Your task to perform on an android device: delete location history Image 0: 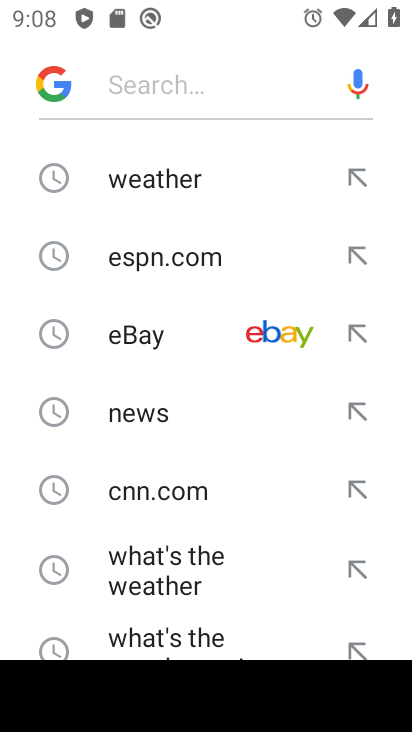
Step 0: press home button
Your task to perform on an android device: delete location history Image 1: 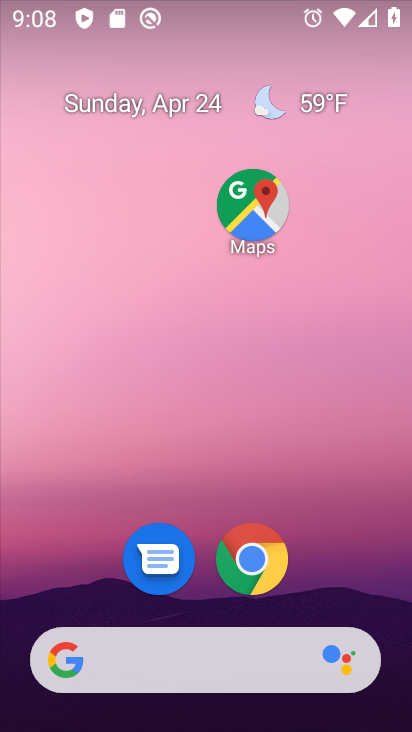
Step 1: drag from (68, 673) to (288, 291)
Your task to perform on an android device: delete location history Image 2: 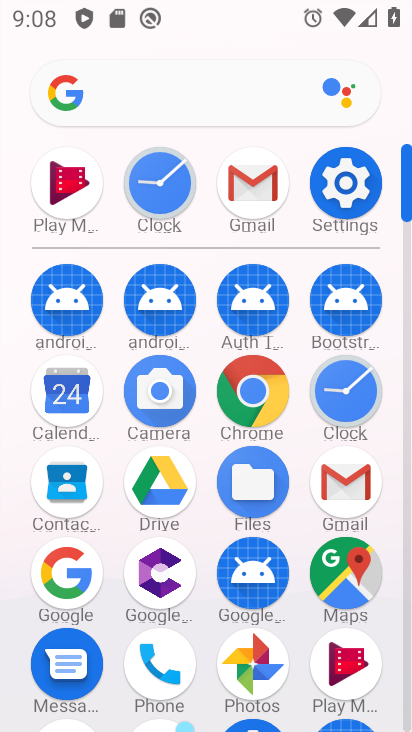
Step 2: click (340, 195)
Your task to perform on an android device: delete location history Image 3: 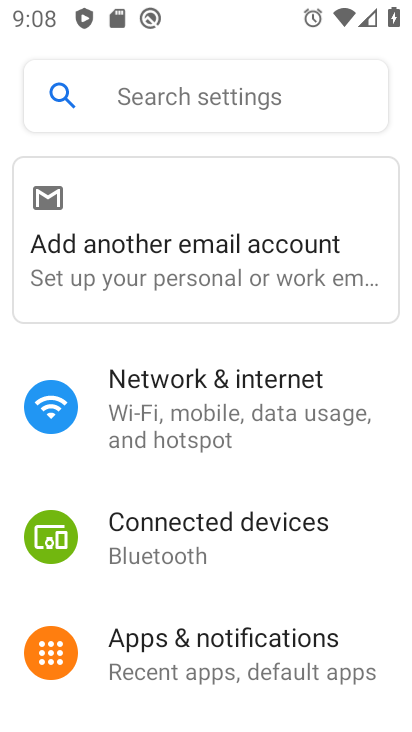
Step 3: drag from (24, 662) to (333, 345)
Your task to perform on an android device: delete location history Image 4: 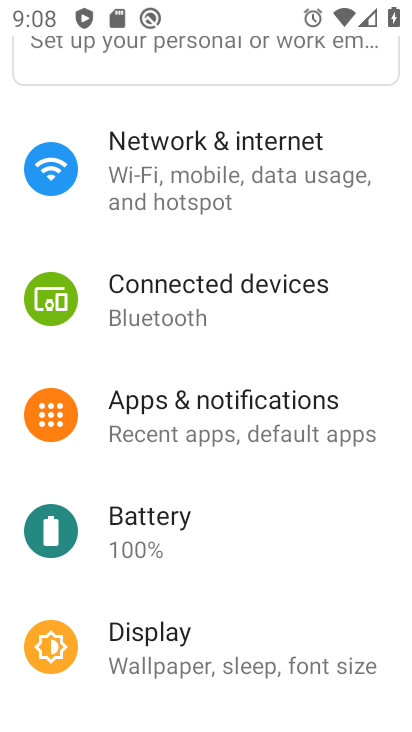
Step 4: drag from (68, 623) to (361, 331)
Your task to perform on an android device: delete location history Image 5: 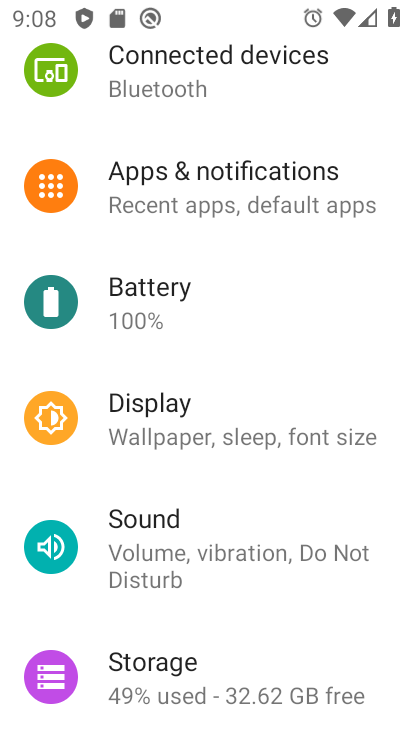
Step 5: drag from (66, 669) to (364, 346)
Your task to perform on an android device: delete location history Image 6: 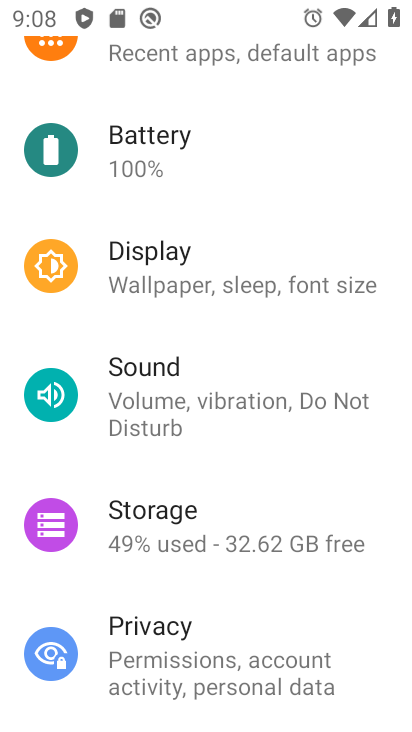
Step 6: drag from (80, 600) to (390, 239)
Your task to perform on an android device: delete location history Image 7: 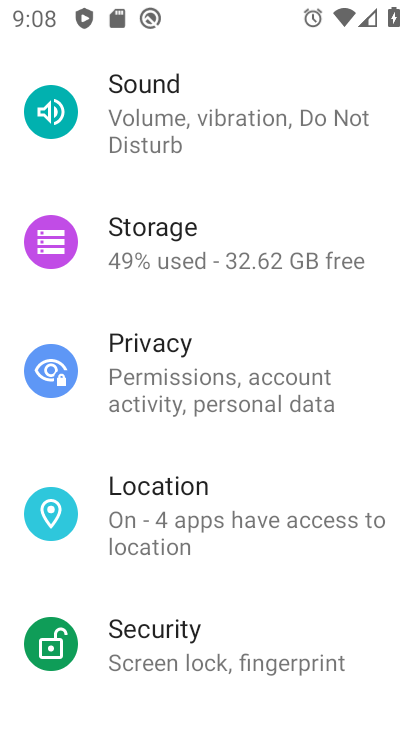
Step 7: click (121, 521)
Your task to perform on an android device: delete location history Image 8: 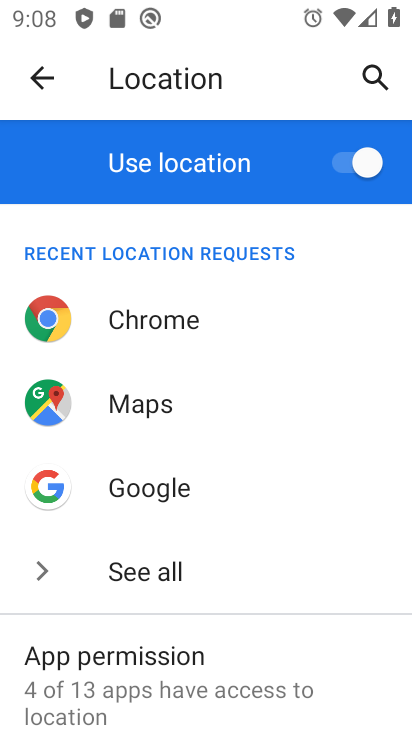
Step 8: drag from (181, 653) to (361, 253)
Your task to perform on an android device: delete location history Image 9: 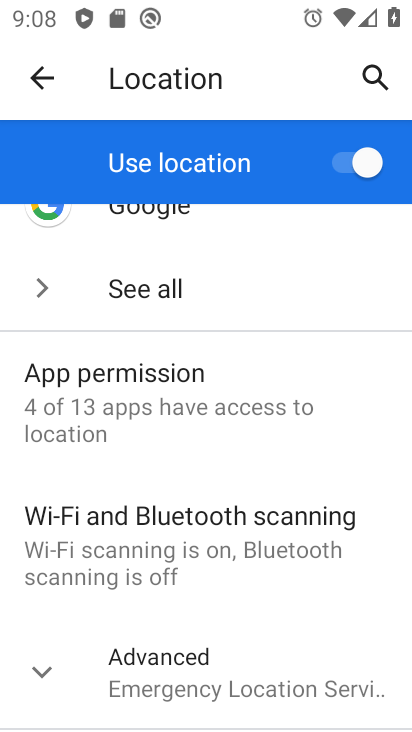
Step 9: drag from (198, 393) to (336, 177)
Your task to perform on an android device: delete location history Image 10: 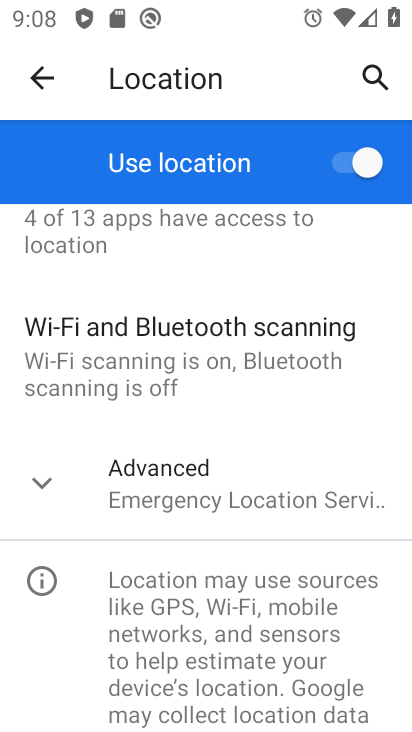
Step 10: click (245, 484)
Your task to perform on an android device: delete location history Image 11: 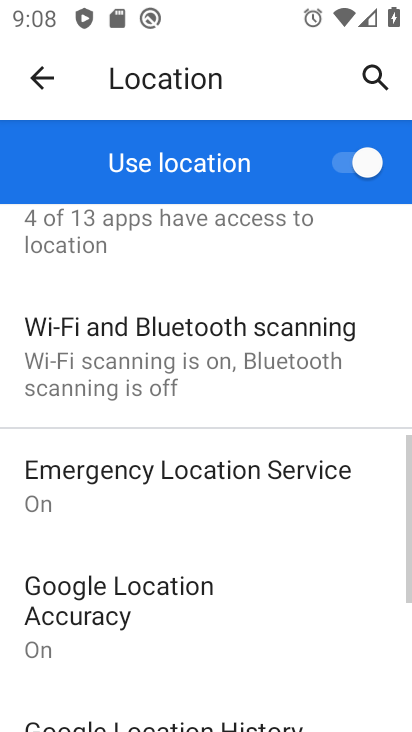
Step 11: drag from (115, 669) to (319, 355)
Your task to perform on an android device: delete location history Image 12: 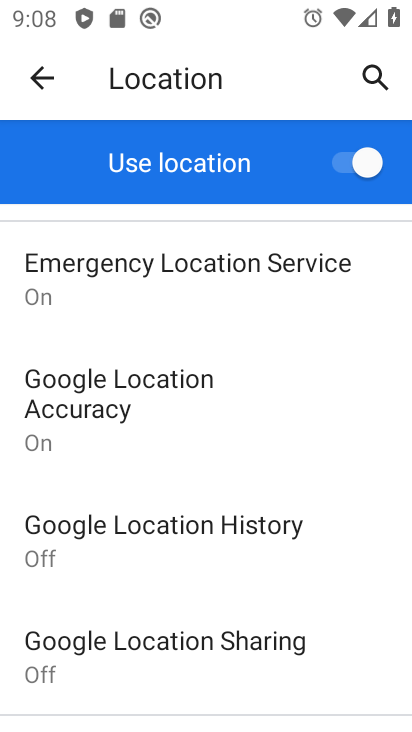
Step 12: click (208, 520)
Your task to perform on an android device: delete location history Image 13: 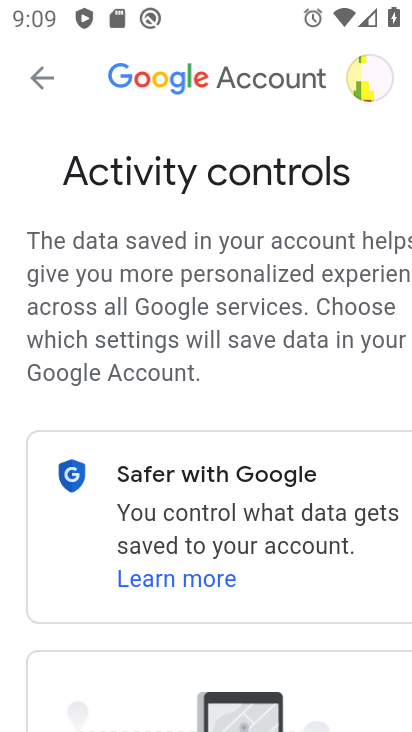
Step 13: drag from (77, 627) to (251, 285)
Your task to perform on an android device: delete location history Image 14: 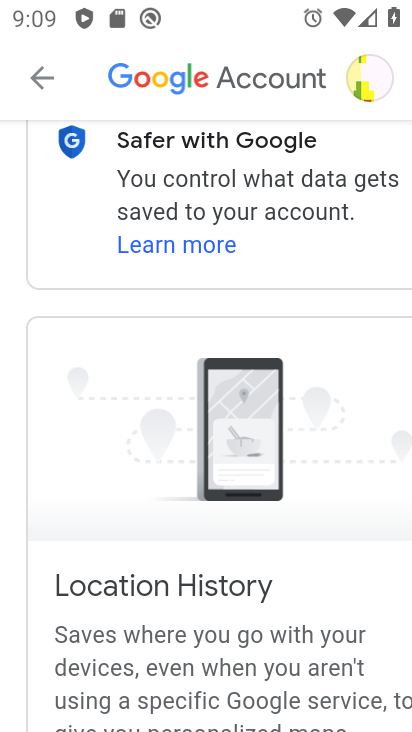
Step 14: drag from (111, 676) to (354, 273)
Your task to perform on an android device: delete location history Image 15: 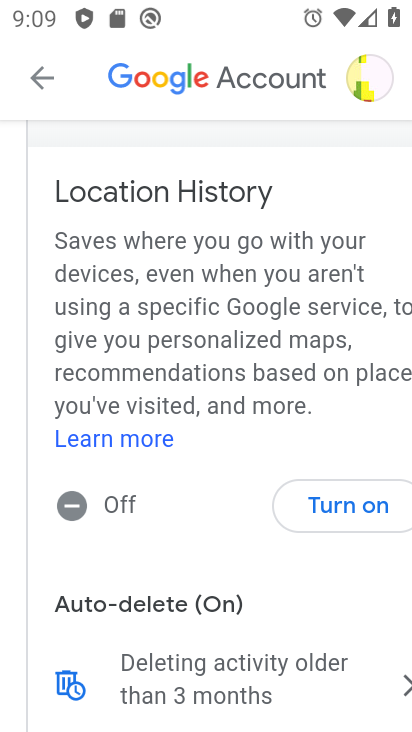
Step 15: drag from (220, 664) to (358, 297)
Your task to perform on an android device: delete location history Image 16: 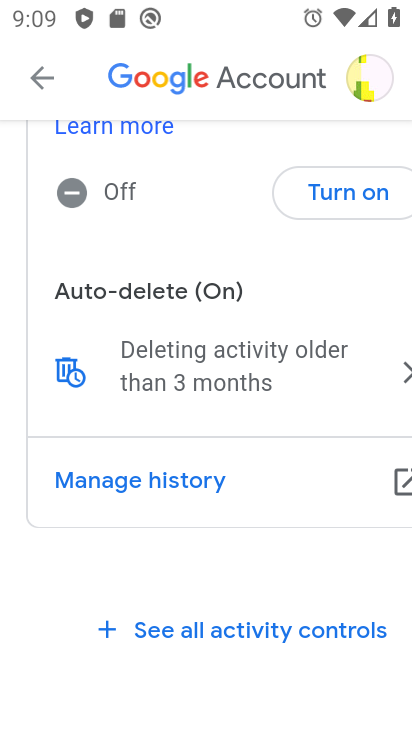
Step 16: click (256, 370)
Your task to perform on an android device: delete location history Image 17: 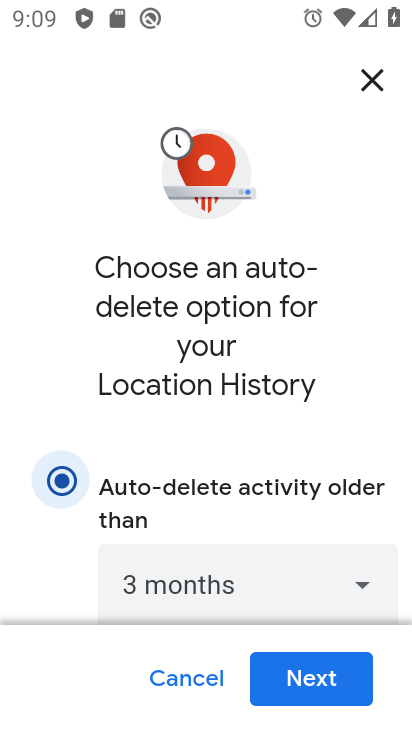
Step 17: click (299, 694)
Your task to perform on an android device: delete location history Image 18: 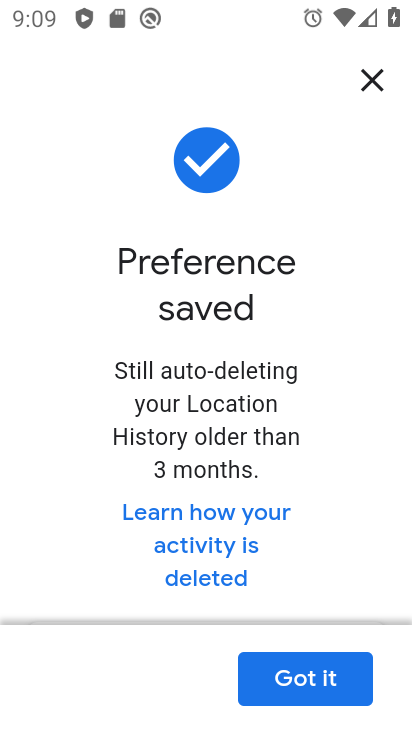
Step 18: click (347, 669)
Your task to perform on an android device: delete location history Image 19: 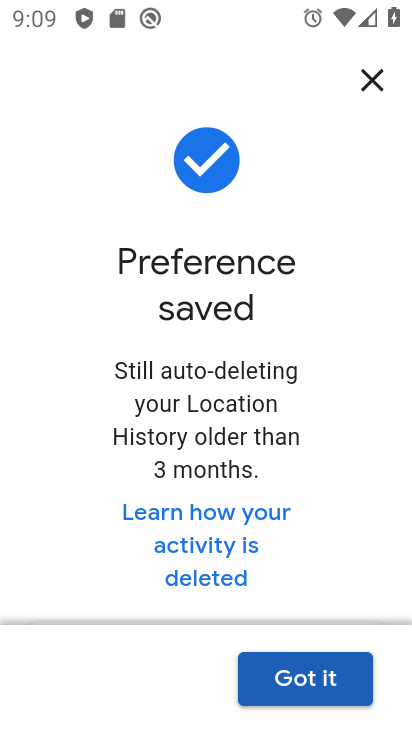
Step 19: task complete